Your task to perform on an android device: Open Chrome and go to settings Image 0: 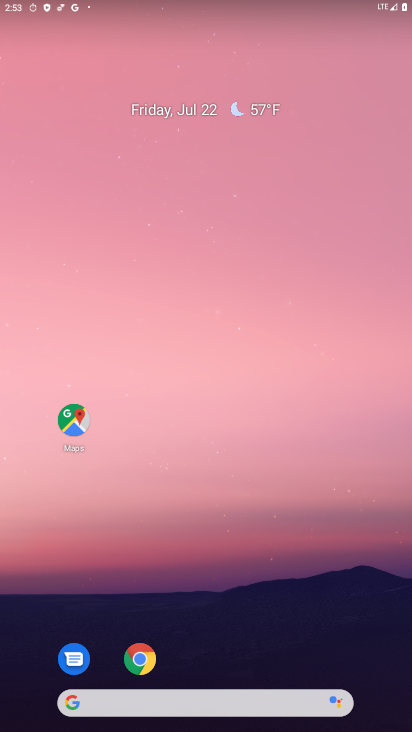
Step 0: click (139, 651)
Your task to perform on an android device: Open Chrome and go to settings Image 1: 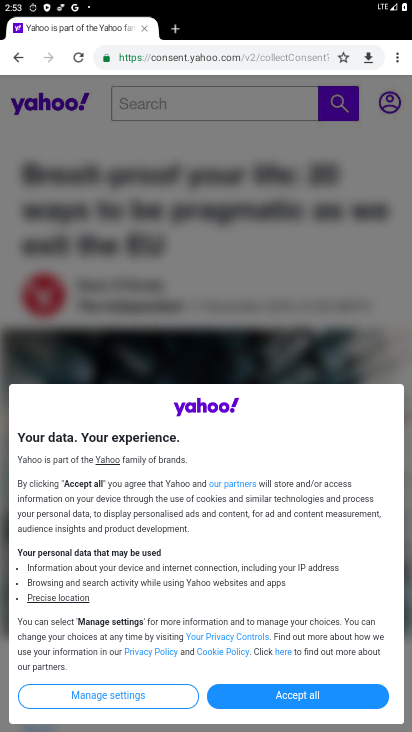
Step 1: click (393, 52)
Your task to perform on an android device: Open Chrome and go to settings Image 2: 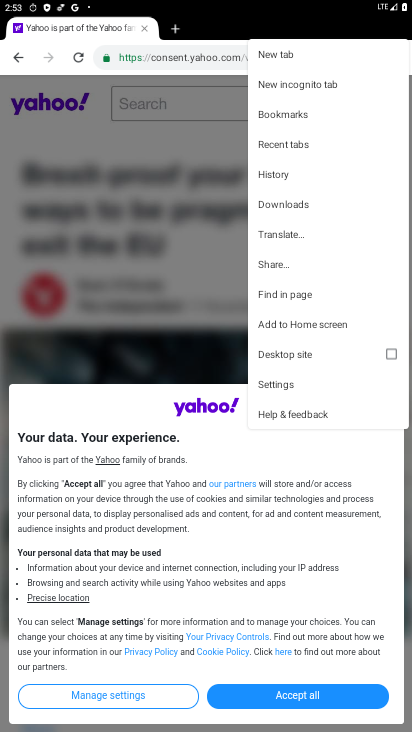
Step 2: click (298, 392)
Your task to perform on an android device: Open Chrome and go to settings Image 3: 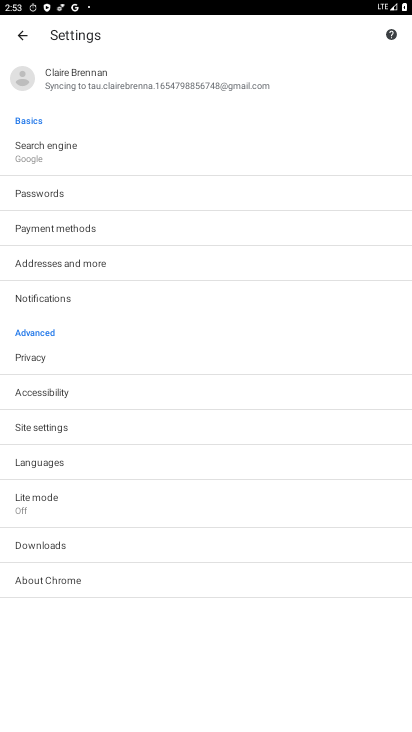
Step 3: task complete